Your task to perform on an android device: toggle notification dots Image 0: 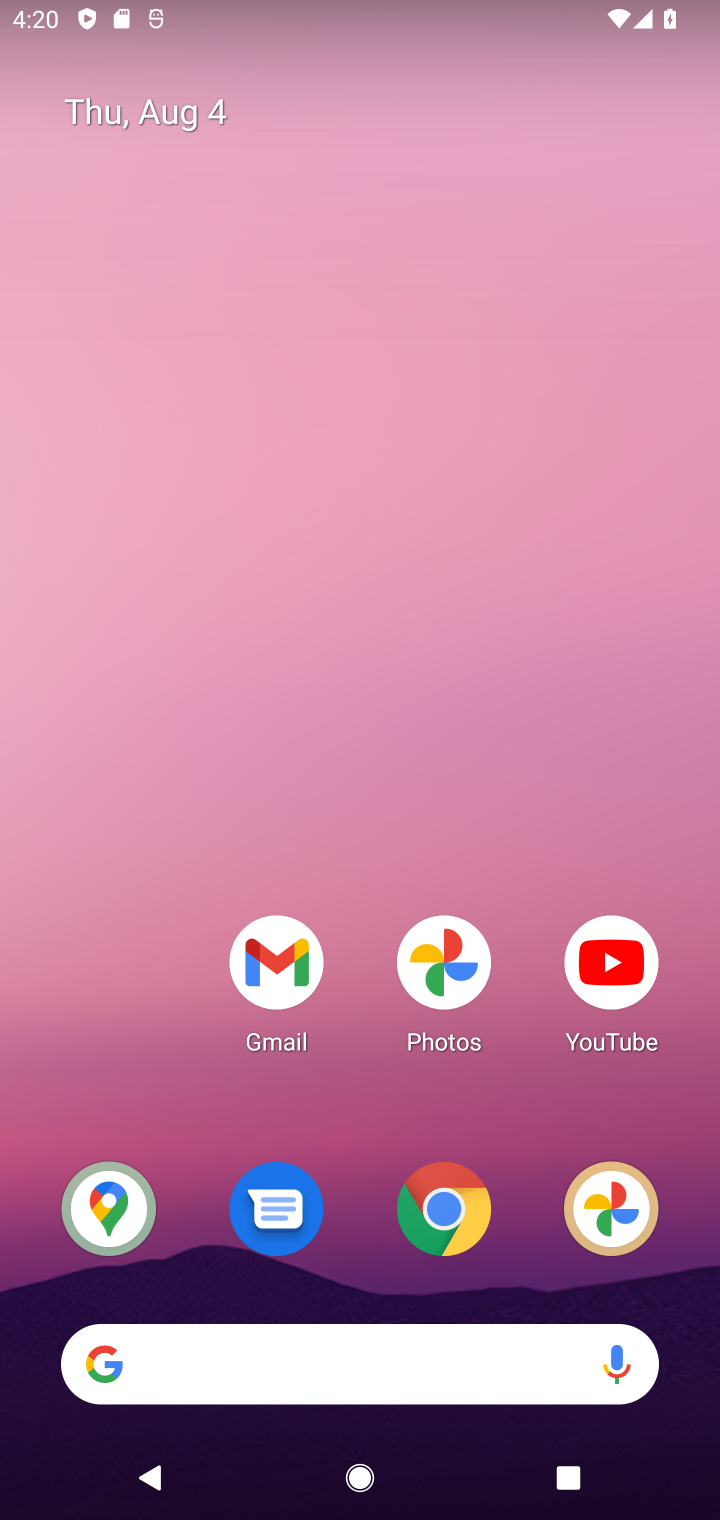
Step 0: drag from (350, 1208) to (400, 243)
Your task to perform on an android device: toggle notification dots Image 1: 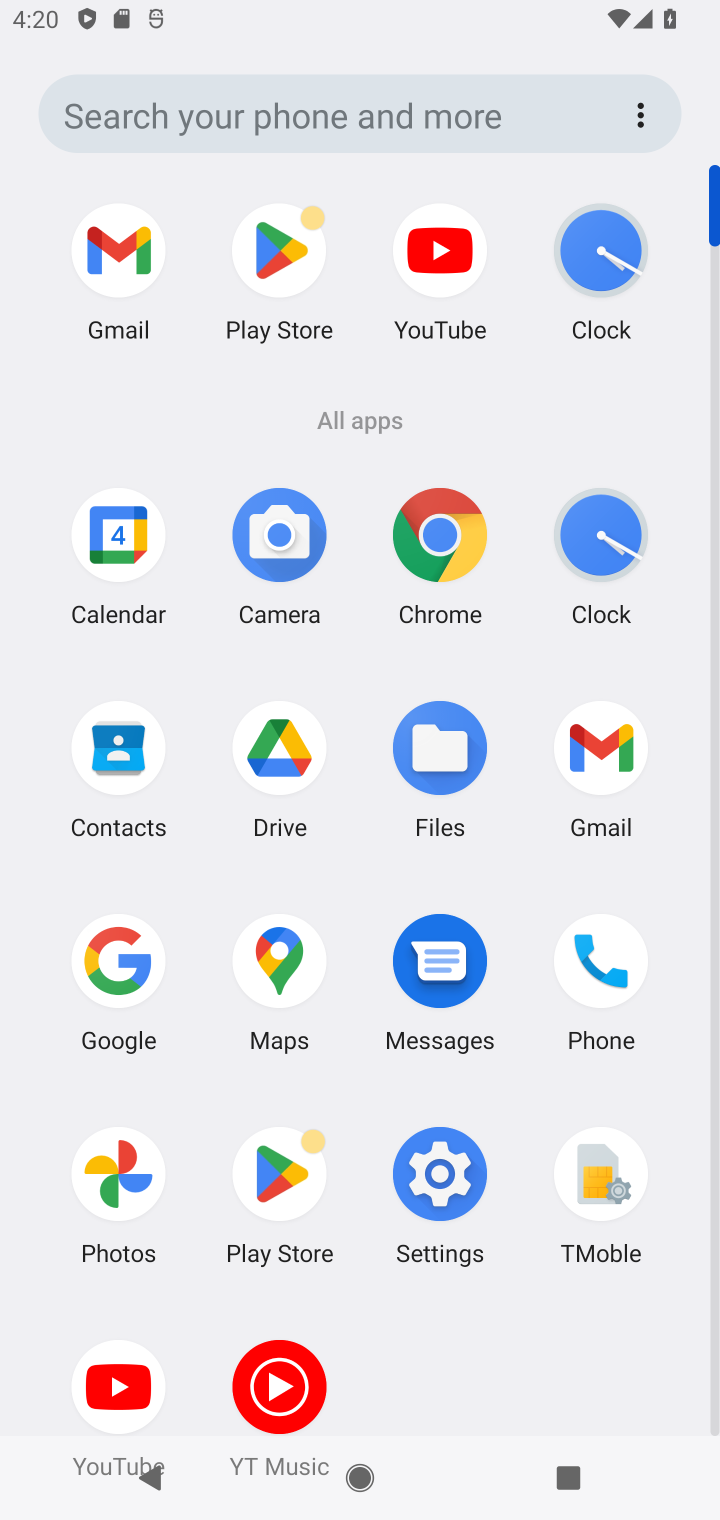
Step 1: click (436, 1185)
Your task to perform on an android device: toggle notification dots Image 2: 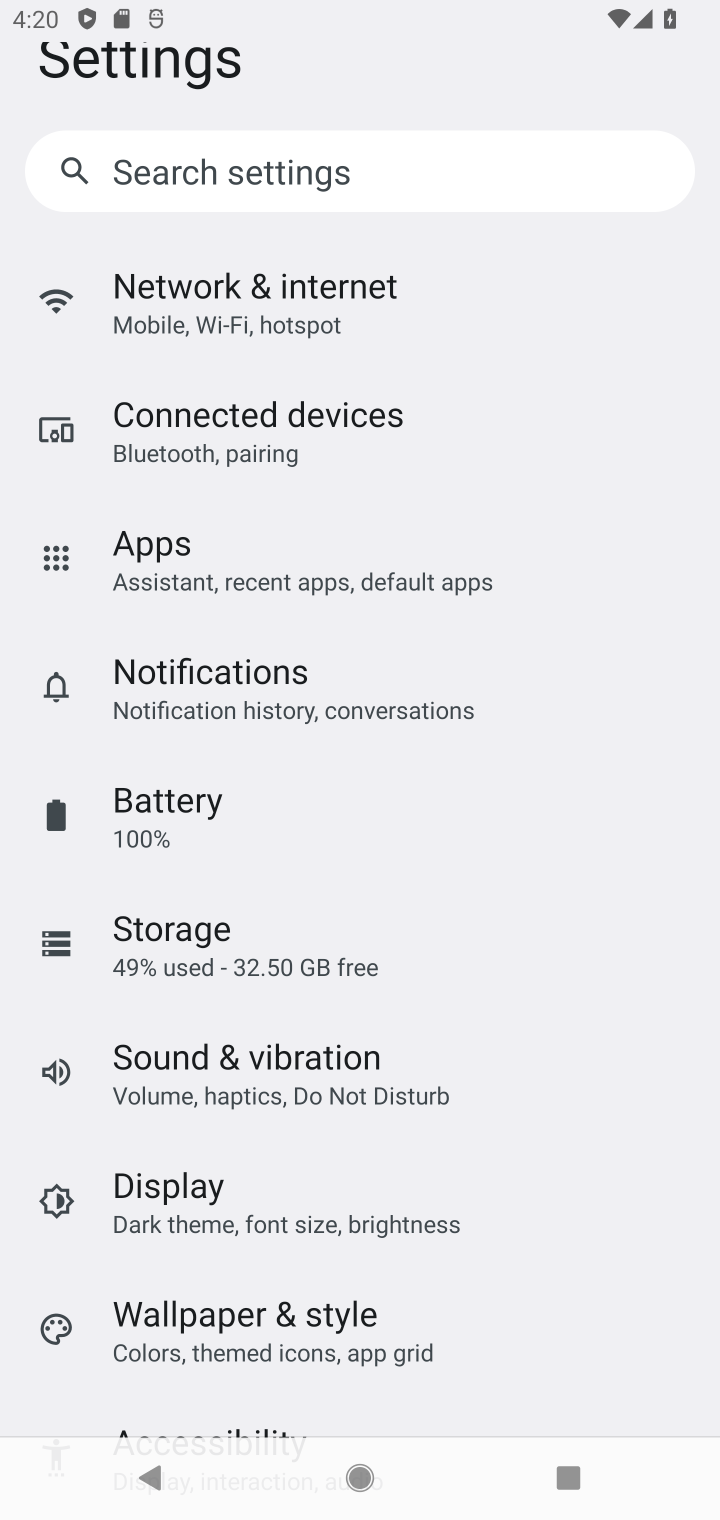
Step 2: click (265, 715)
Your task to perform on an android device: toggle notification dots Image 3: 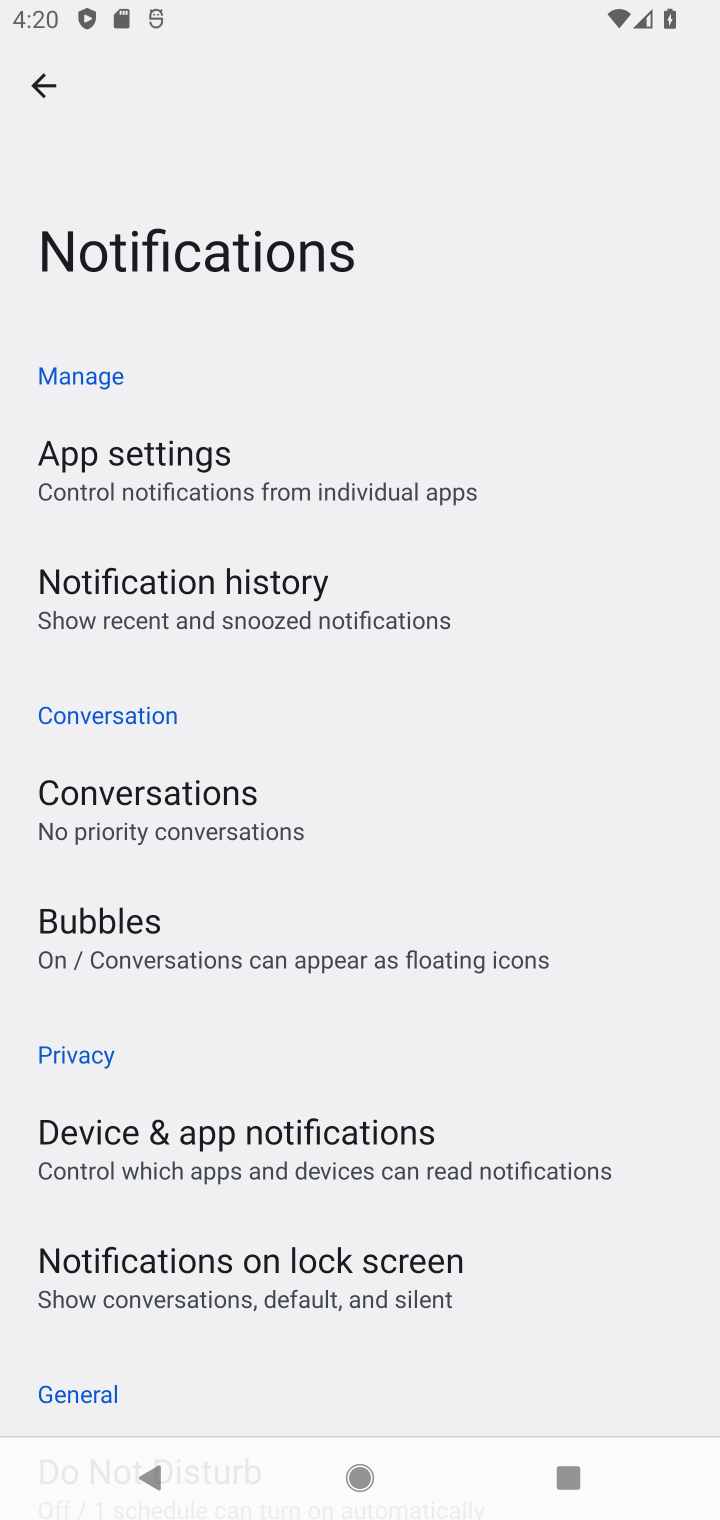
Step 3: drag from (171, 1256) to (299, 481)
Your task to perform on an android device: toggle notification dots Image 4: 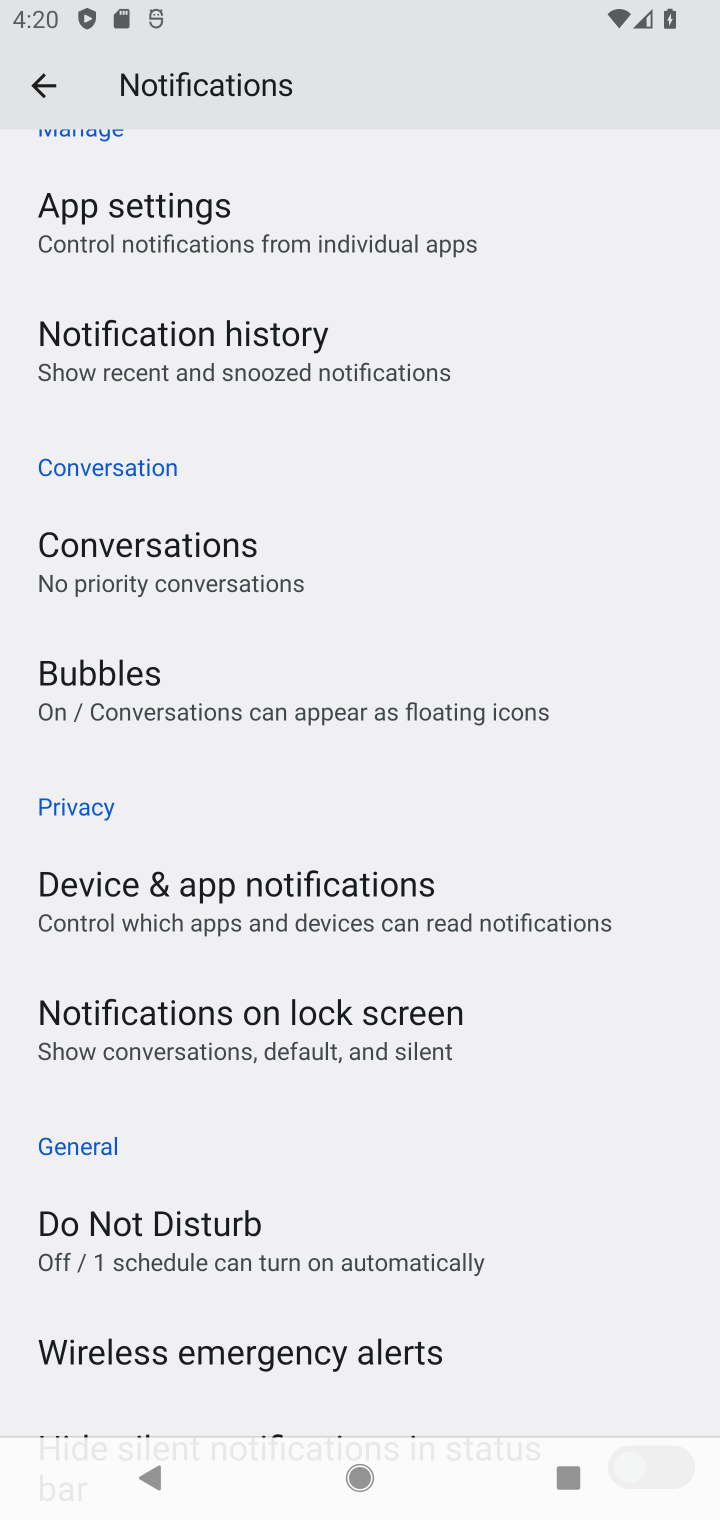
Step 4: drag from (299, 1156) to (316, 890)
Your task to perform on an android device: toggle notification dots Image 5: 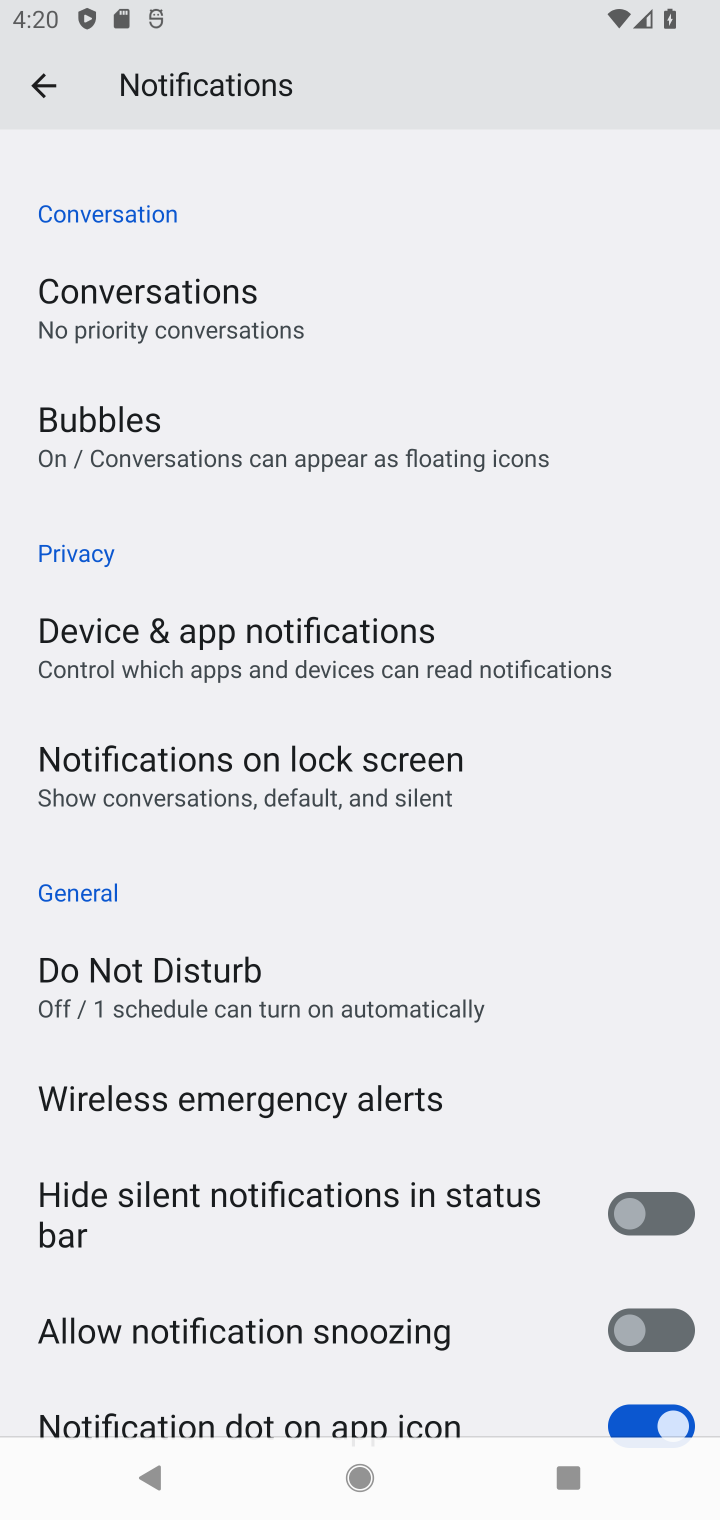
Step 5: click (635, 1425)
Your task to perform on an android device: toggle notification dots Image 6: 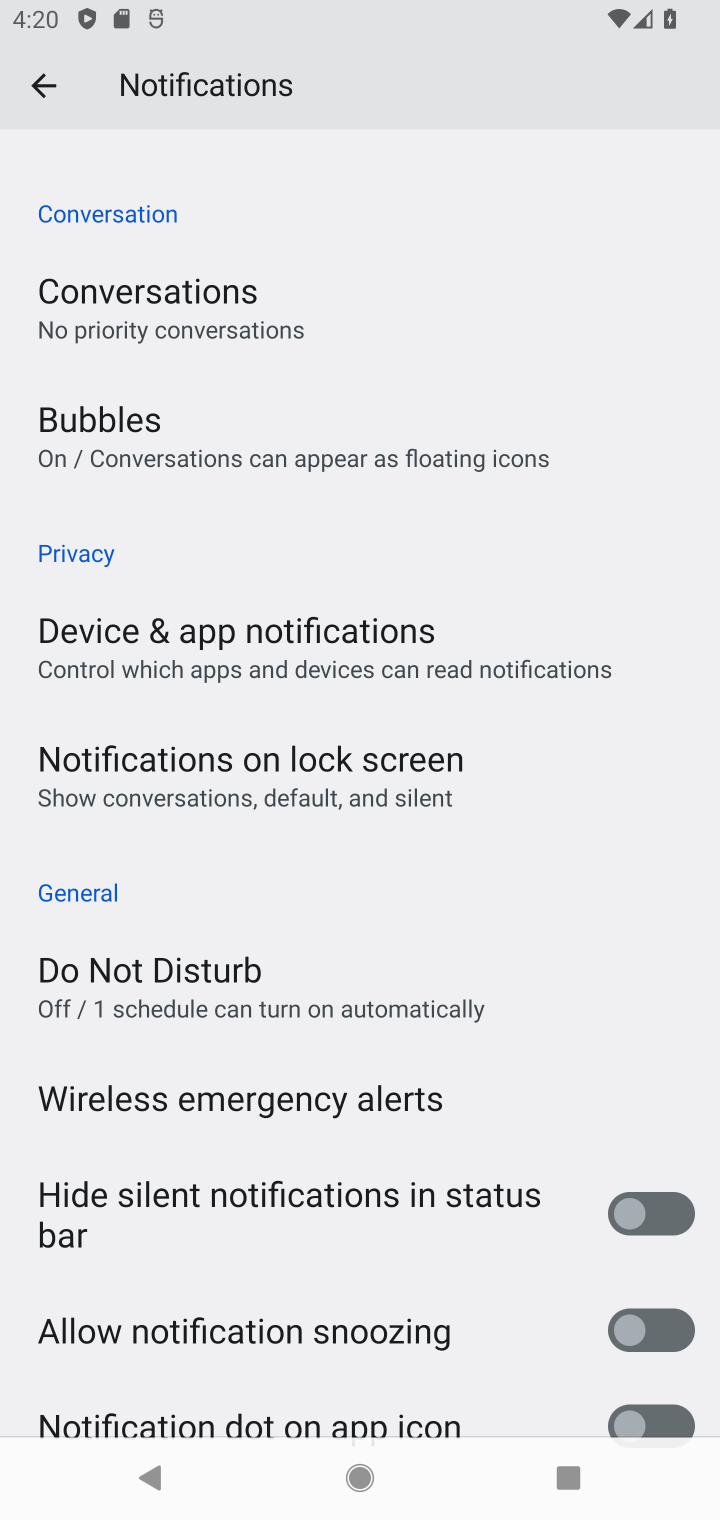
Step 6: task complete